Your task to perform on an android device: What is the news today? Image 0: 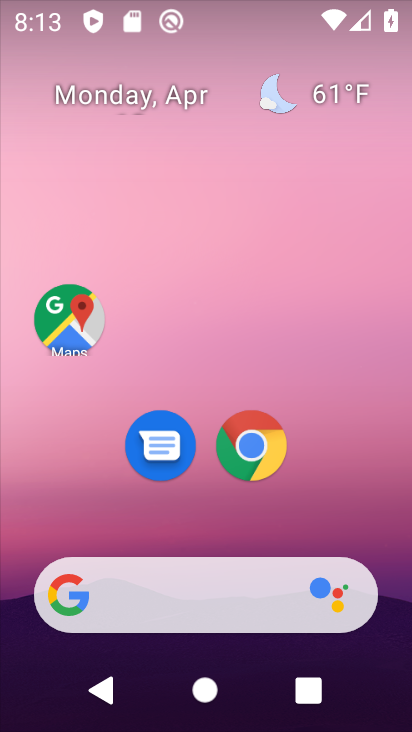
Step 0: click (257, 442)
Your task to perform on an android device: What is the news today? Image 1: 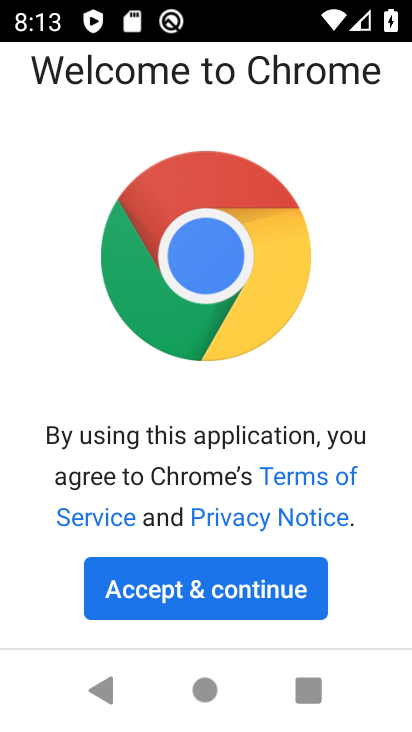
Step 1: click (193, 572)
Your task to perform on an android device: What is the news today? Image 2: 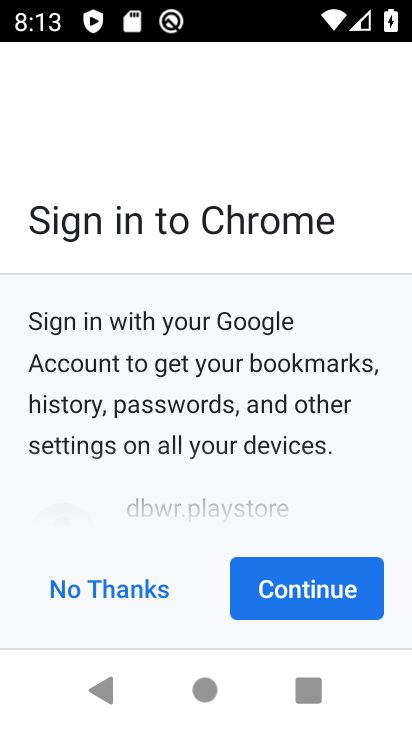
Step 2: click (266, 572)
Your task to perform on an android device: What is the news today? Image 3: 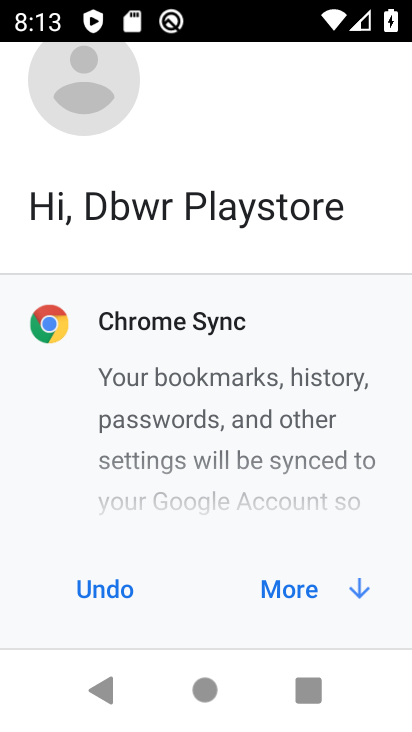
Step 3: click (273, 581)
Your task to perform on an android device: What is the news today? Image 4: 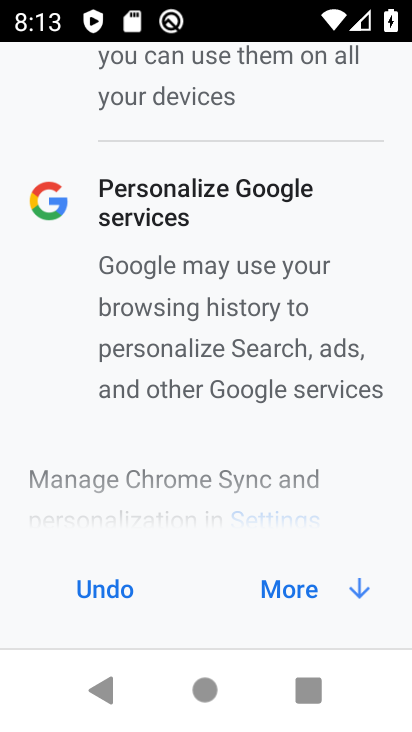
Step 4: click (273, 589)
Your task to perform on an android device: What is the news today? Image 5: 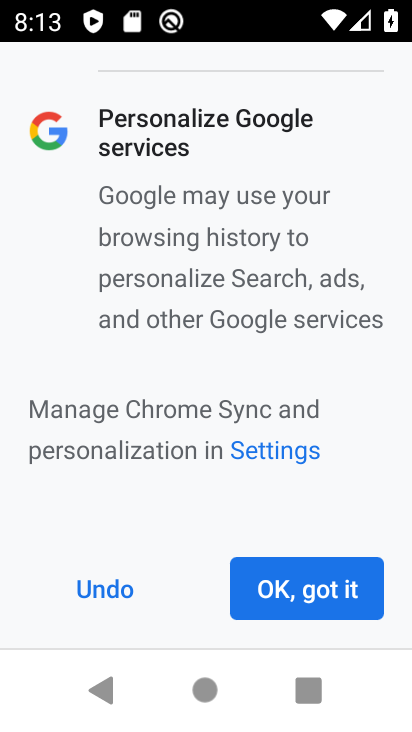
Step 5: click (266, 579)
Your task to perform on an android device: What is the news today? Image 6: 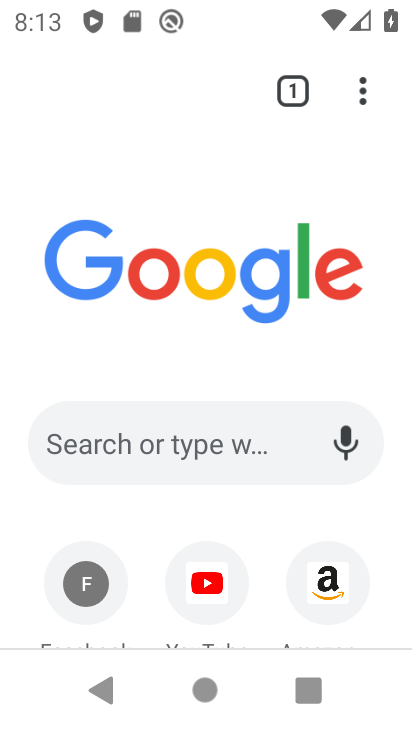
Step 6: click (110, 440)
Your task to perform on an android device: What is the news today? Image 7: 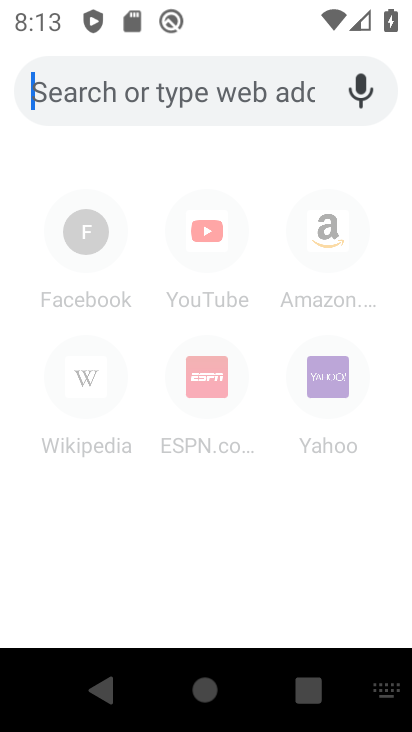
Step 7: type "today news"
Your task to perform on an android device: What is the news today? Image 8: 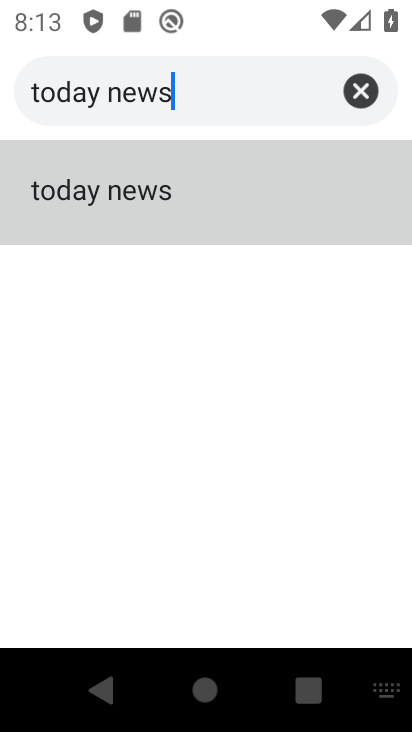
Step 8: click (118, 200)
Your task to perform on an android device: What is the news today? Image 9: 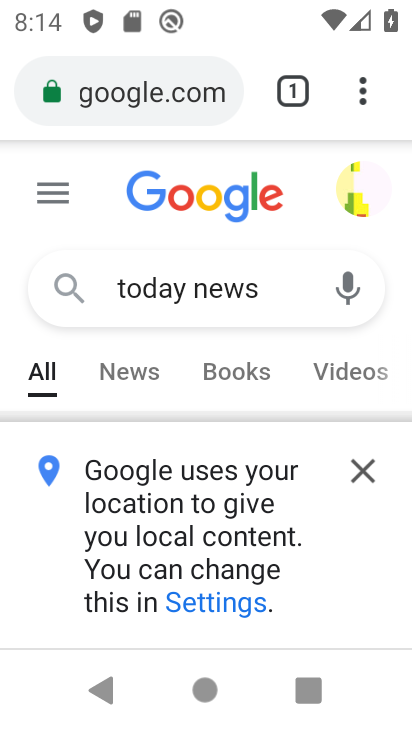
Step 9: click (367, 464)
Your task to perform on an android device: What is the news today? Image 10: 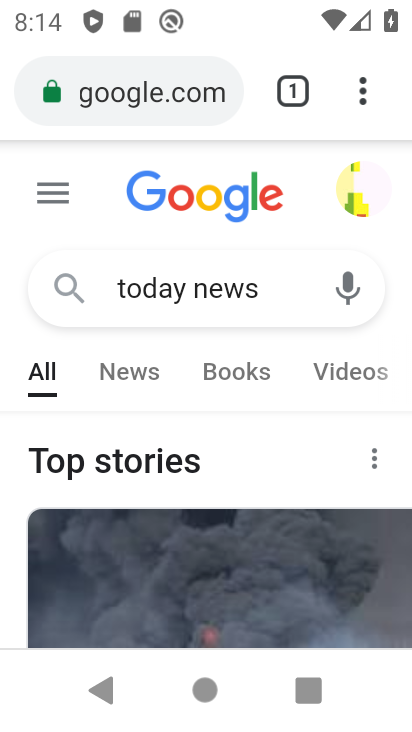
Step 10: task complete